Your task to perform on an android device: delete a single message in the gmail app Image 0: 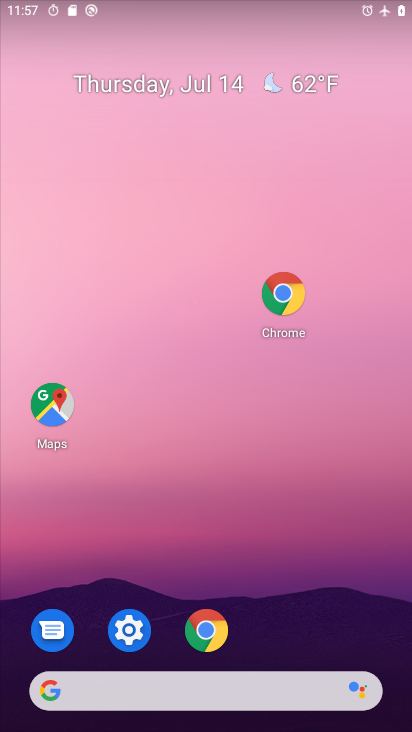
Step 0: drag from (247, 588) to (217, 263)
Your task to perform on an android device: delete a single message in the gmail app Image 1: 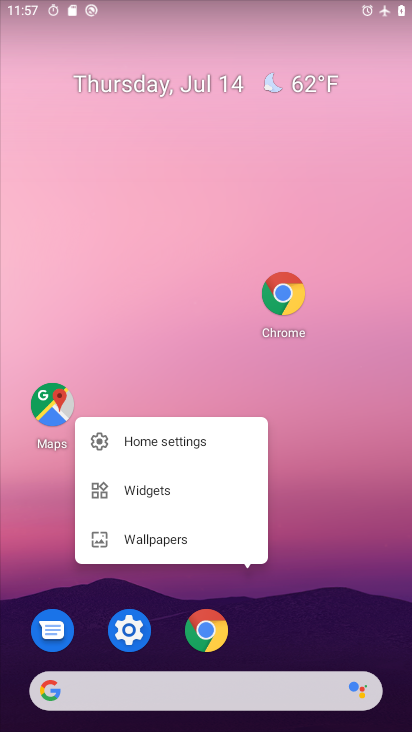
Step 1: click (226, 138)
Your task to perform on an android device: delete a single message in the gmail app Image 2: 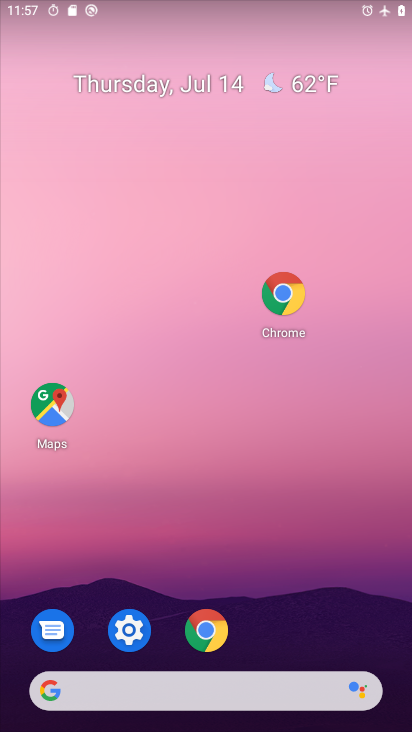
Step 2: drag from (259, 724) to (236, 74)
Your task to perform on an android device: delete a single message in the gmail app Image 3: 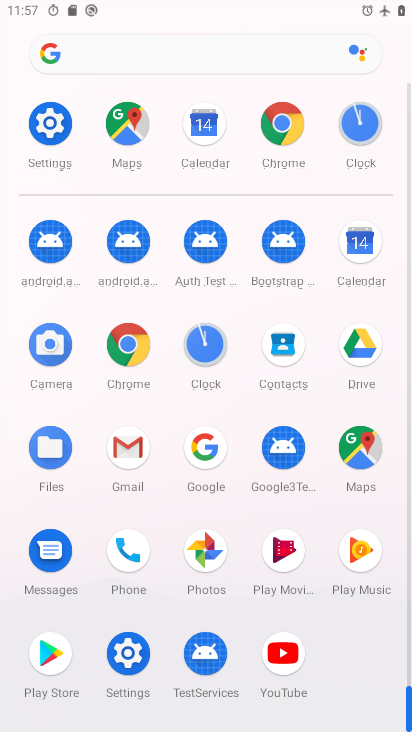
Step 3: click (122, 447)
Your task to perform on an android device: delete a single message in the gmail app Image 4: 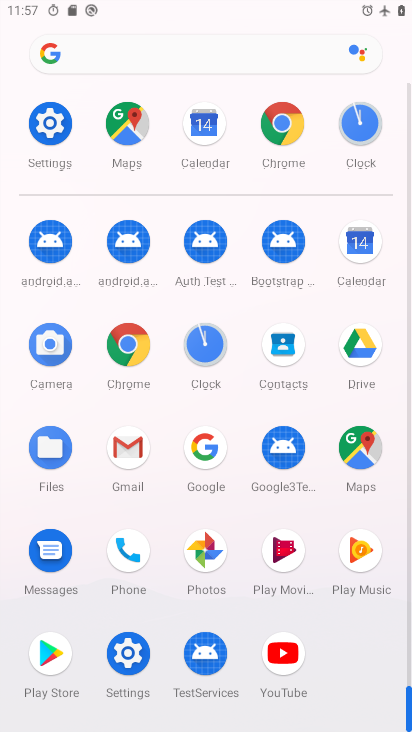
Step 4: click (122, 440)
Your task to perform on an android device: delete a single message in the gmail app Image 5: 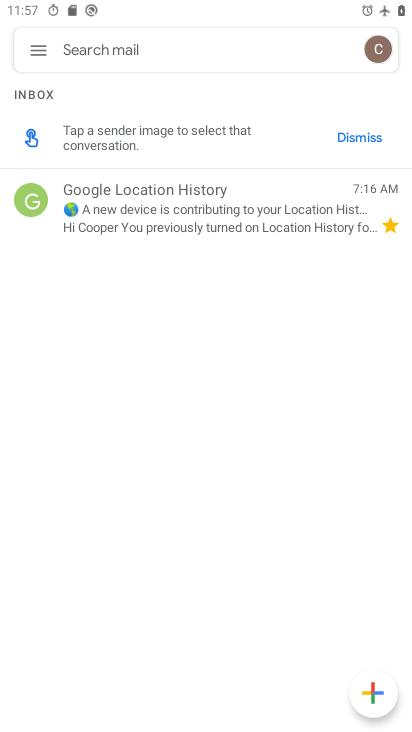
Step 5: click (184, 217)
Your task to perform on an android device: delete a single message in the gmail app Image 6: 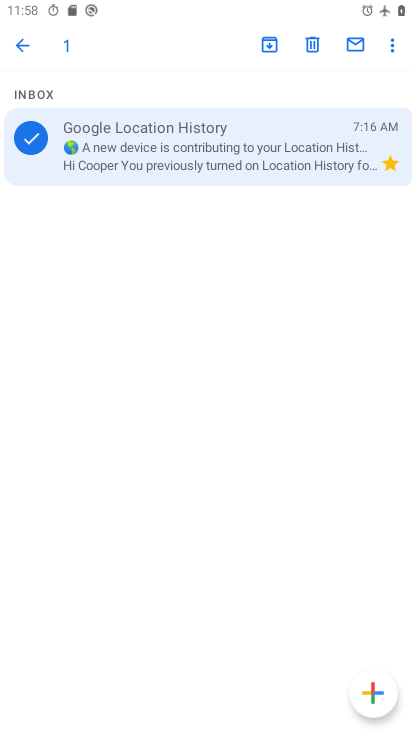
Step 6: click (303, 44)
Your task to perform on an android device: delete a single message in the gmail app Image 7: 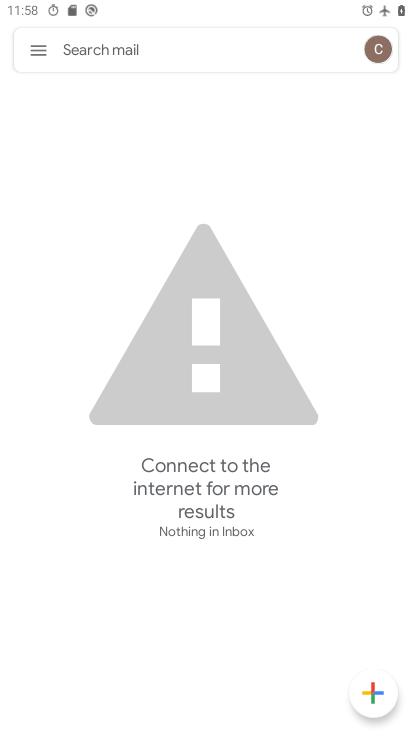
Step 7: task complete